Your task to perform on an android device: Search for Mexican restaurants on Maps Image 0: 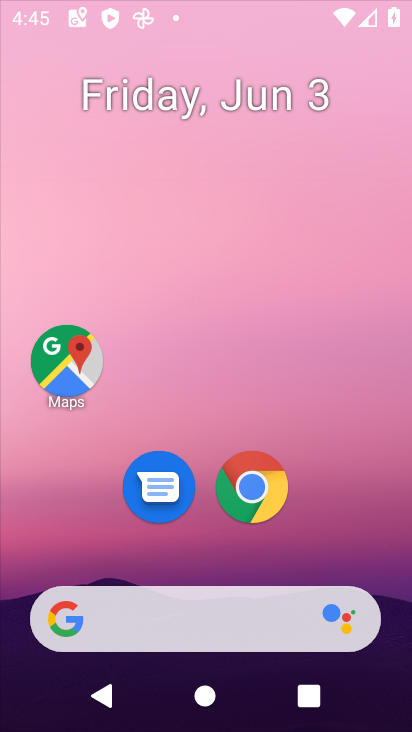
Step 0: click (307, 105)
Your task to perform on an android device: Search for Mexican restaurants on Maps Image 1: 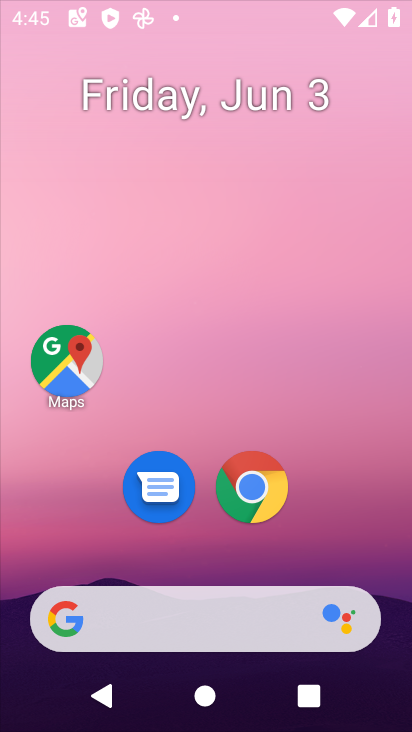
Step 1: press home button
Your task to perform on an android device: Search for Mexican restaurants on Maps Image 2: 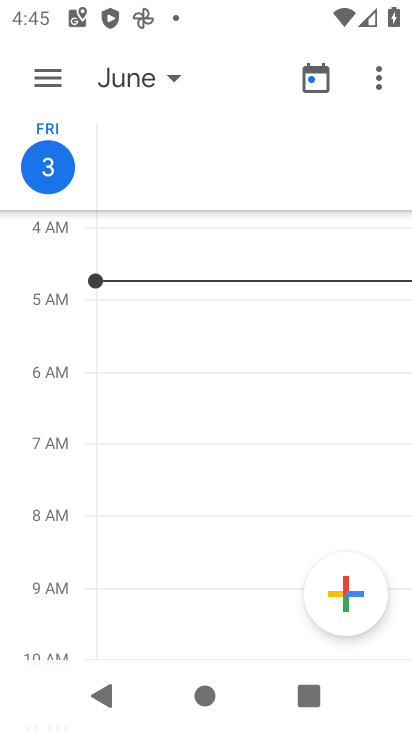
Step 2: drag from (214, 500) to (261, 109)
Your task to perform on an android device: Search for Mexican restaurants on Maps Image 3: 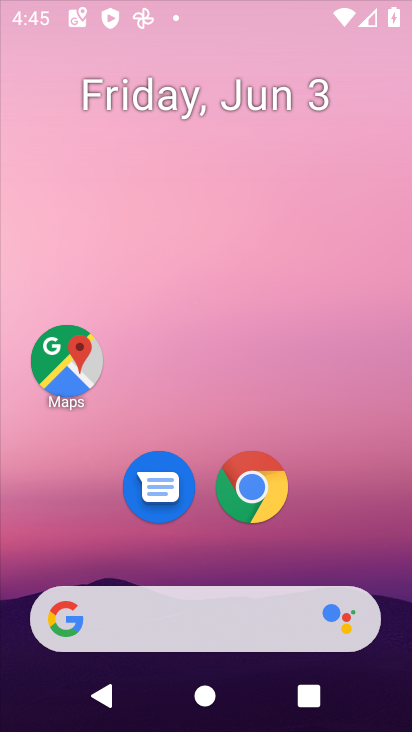
Step 3: press home button
Your task to perform on an android device: Search for Mexican restaurants on Maps Image 4: 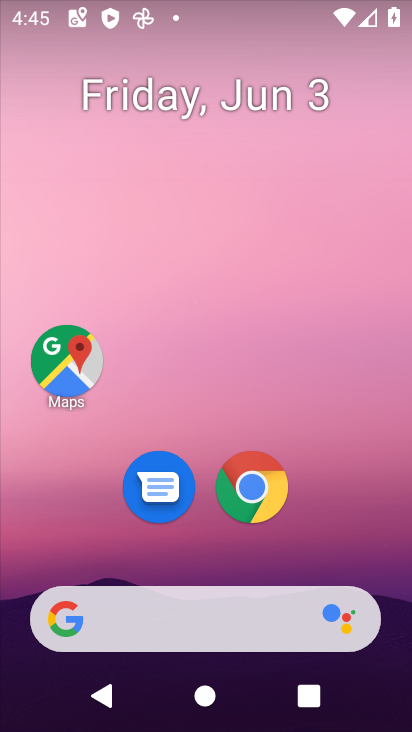
Step 4: drag from (212, 285) to (212, 115)
Your task to perform on an android device: Search for Mexican restaurants on Maps Image 5: 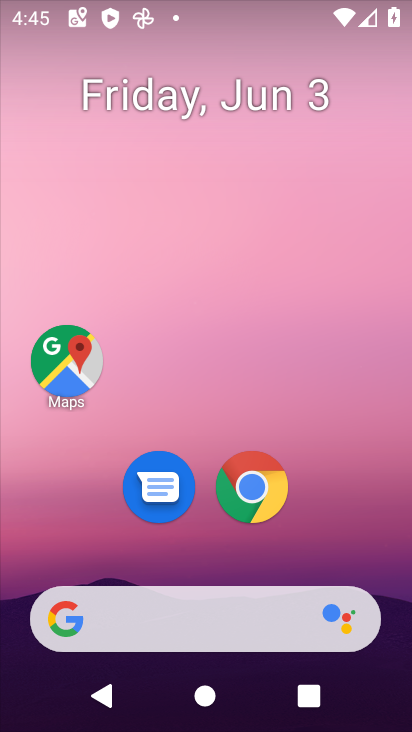
Step 5: click (82, 350)
Your task to perform on an android device: Search for Mexican restaurants on Maps Image 6: 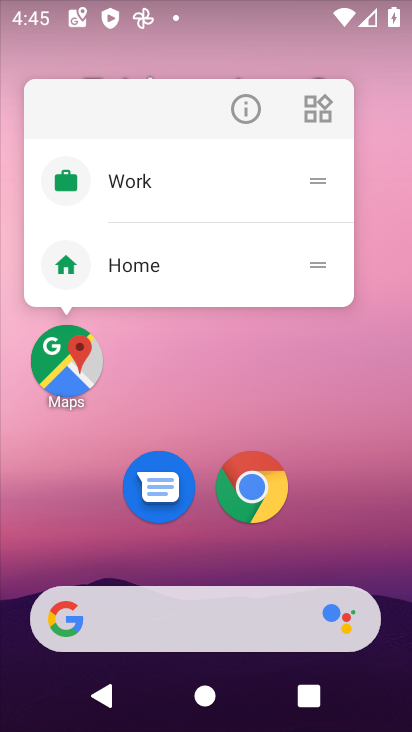
Step 6: click (255, 104)
Your task to perform on an android device: Search for Mexican restaurants on Maps Image 7: 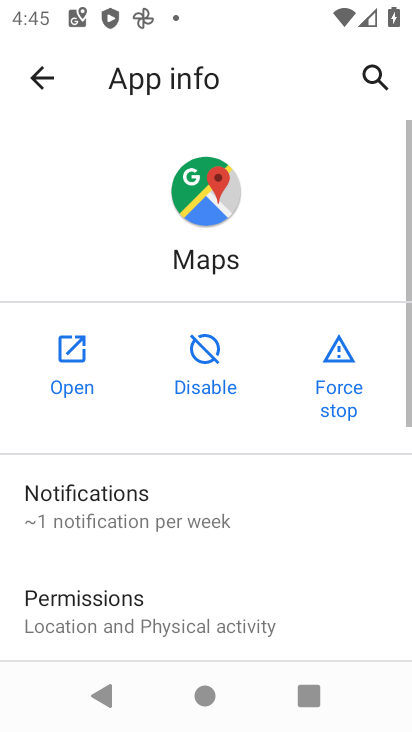
Step 7: click (81, 385)
Your task to perform on an android device: Search for Mexican restaurants on Maps Image 8: 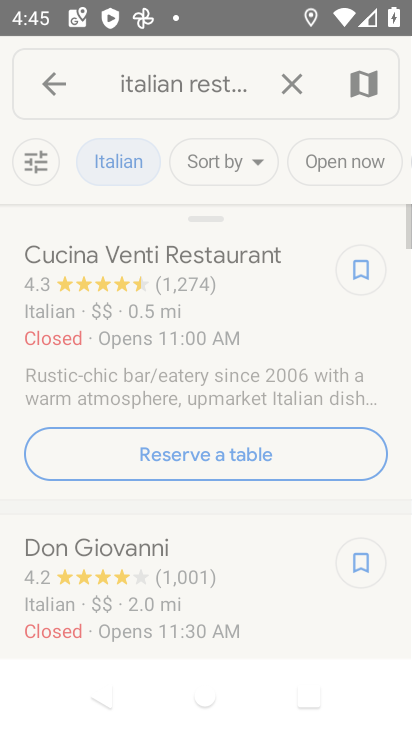
Step 8: drag from (291, 550) to (330, 176)
Your task to perform on an android device: Search for Mexican restaurants on Maps Image 9: 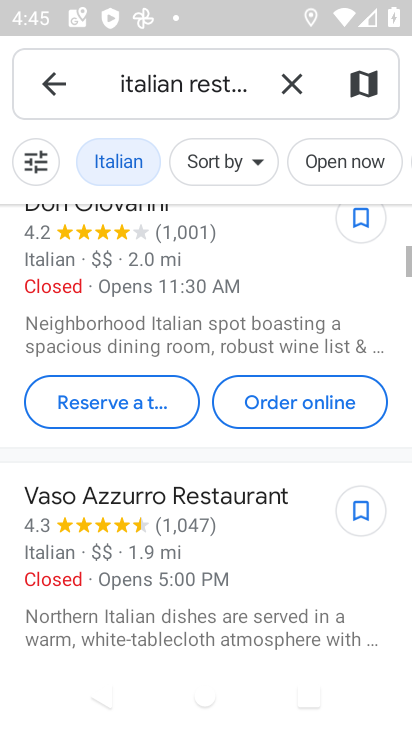
Step 9: drag from (243, 592) to (325, 634)
Your task to perform on an android device: Search for Mexican restaurants on Maps Image 10: 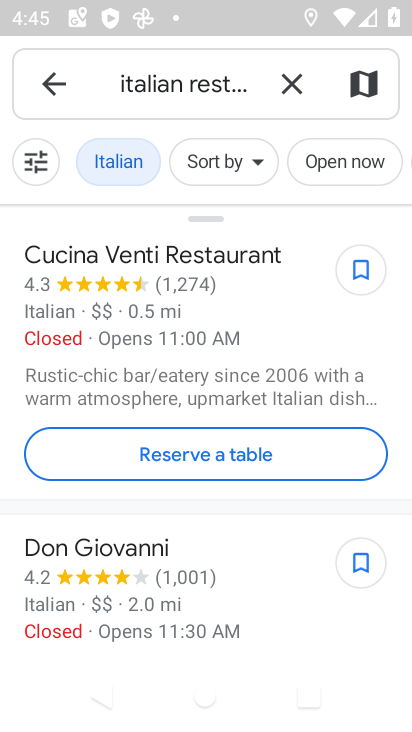
Step 10: click (276, 95)
Your task to perform on an android device: Search for Mexican restaurants on Maps Image 11: 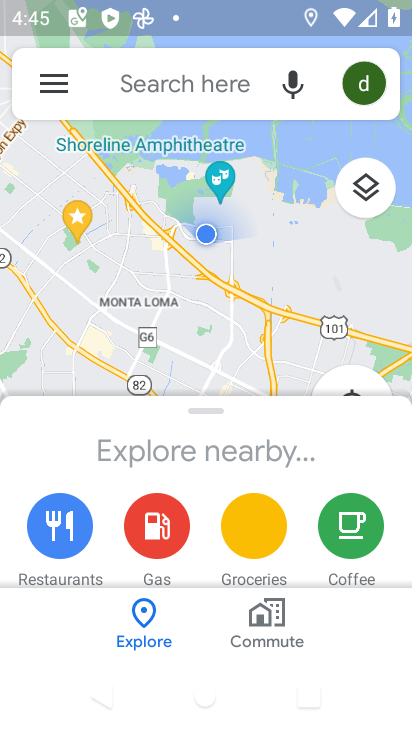
Step 11: click (201, 73)
Your task to perform on an android device: Search for Mexican restaurants on Maps Image 12: 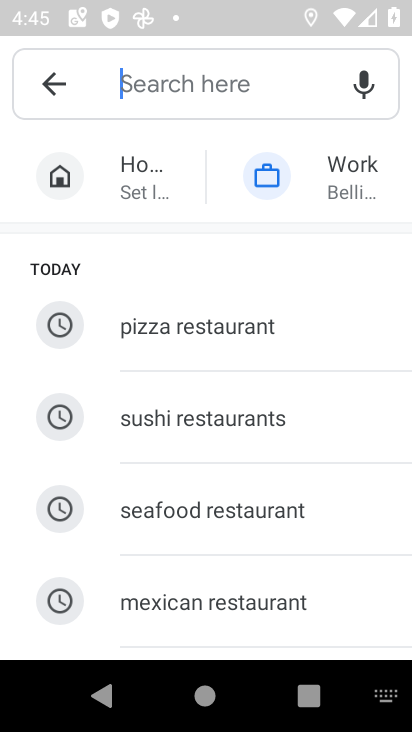
Step 12: click (195, 599)
Your task to perform on an android device: Search for Mexican restaurants on Maps Image 13: 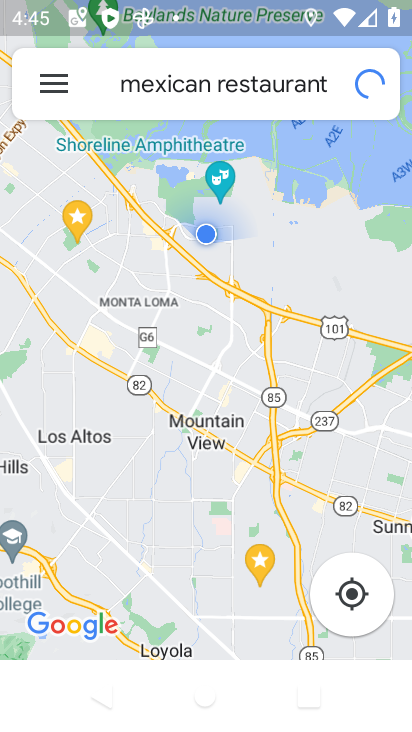
Step 13: task complete